Your task to perform on an android device: change your default location settings in chrome Image 0: 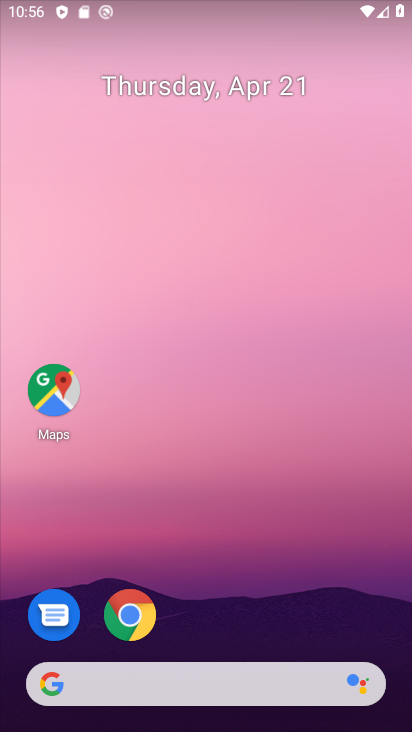
Step 0: drag from (247, 694) to (147, 82)
Your task to perform on an android device: change your default location settings in chrome Image 1: 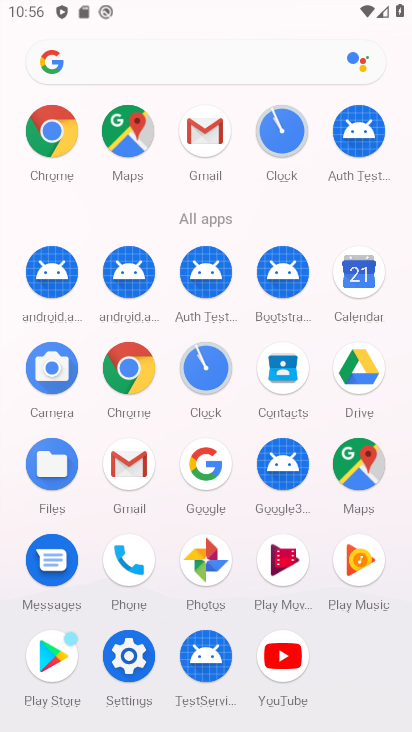
Step 1: click (125, 371)
Your task to perform on an android device: change your default location settings in chrome Image 2: 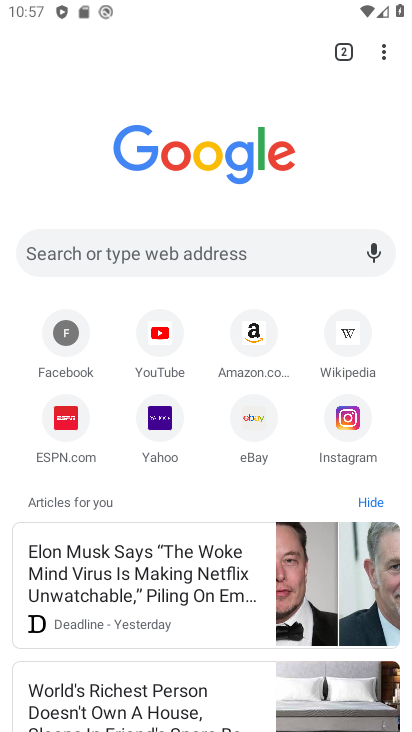
Step 2: drag from (382, 46) to (173, 481)
Your task to perform on an android device: change your default location settings in chrome Image 3: 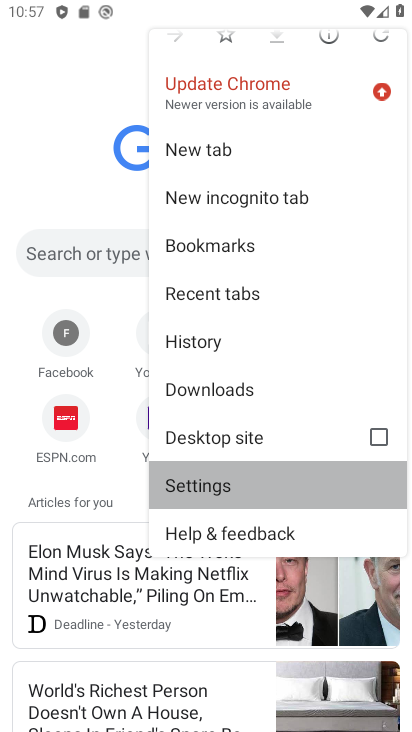
Step 3: click (173, 481)
Your task to perform on an android device: change your default location settings in chrome Image 4: 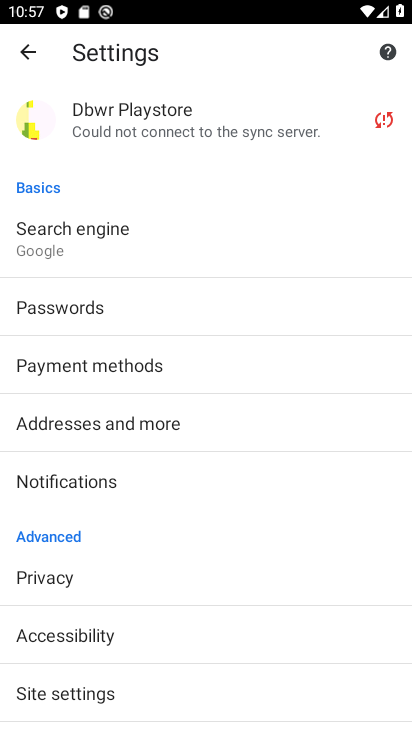
Step 4: drag from (133, 456) to (117, 212)
Your task to perform on an android device: change your default location settings in chrome Image 5: 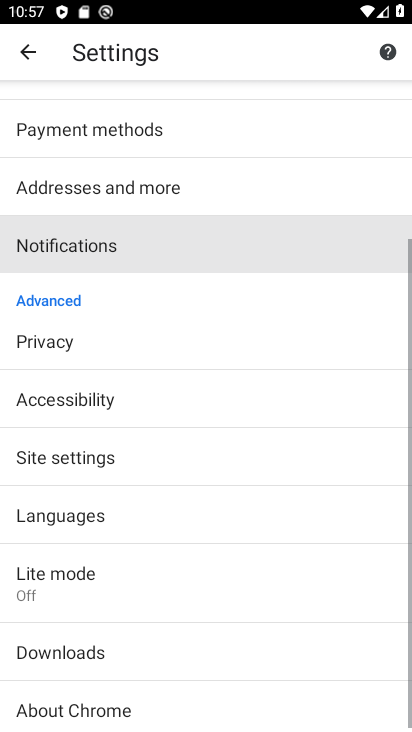
Step 5: drag from (173, 508) to (173, 280)
Your task to perform on an android device: change your default location settings in chrome Image 6: 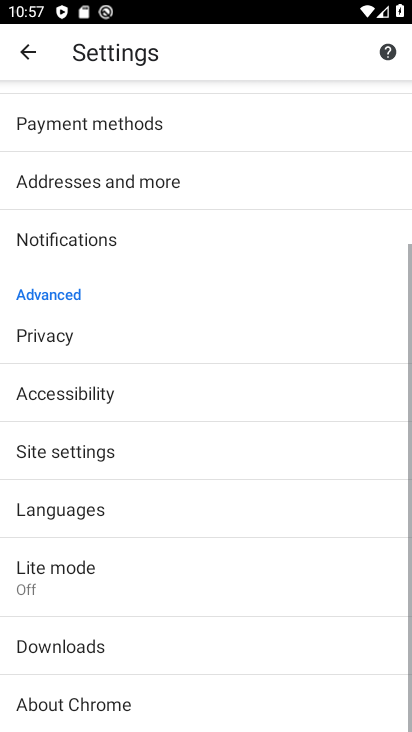
Step 6: click (62, 518)
Your task to perform on an android device: change your default location settings in chrome Image 7: 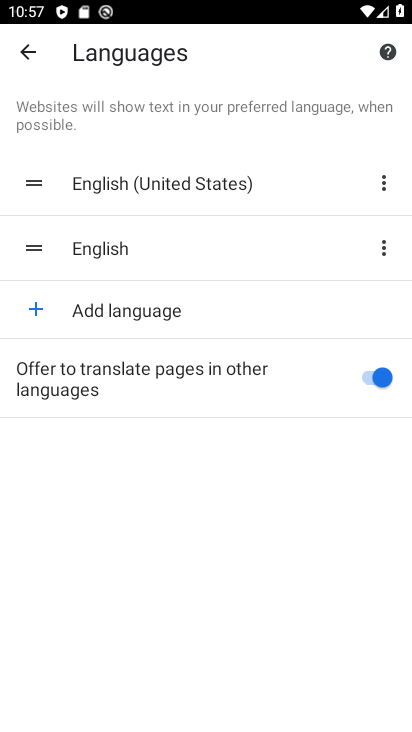
Step 7: click (27, 51)
Your task to perform on an android device: change your default location settings in chrome Image 8: 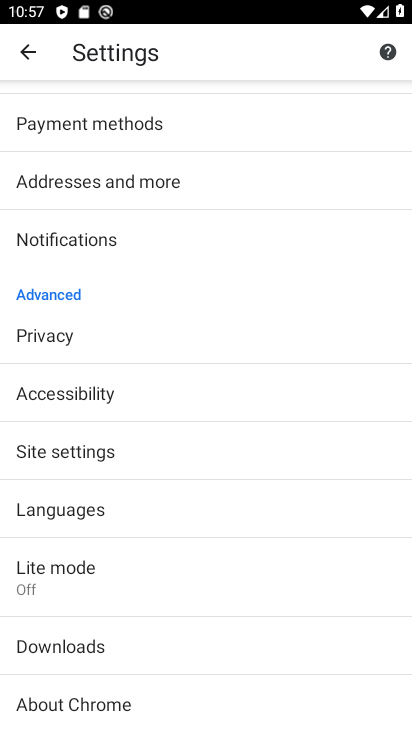
Step 8: click (44, 450)
Your task to perform on an android device: change your default location settings in chrome Image 9: 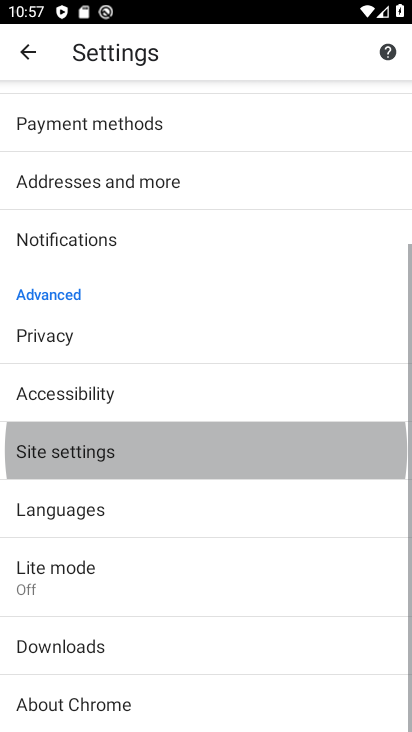
Step 9: click (44, 449)
Your task to perform on an android device: change your default location settings in chrome Image 10: 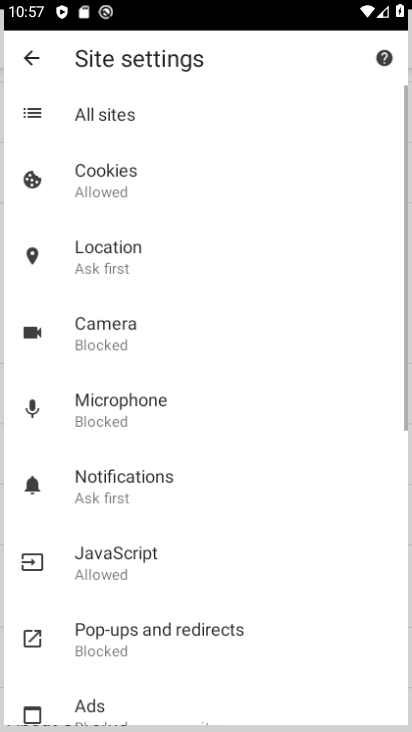
Step 10: click (45, 448)
Your task to perform on an android device: change your default location settings in chrome Image 11: 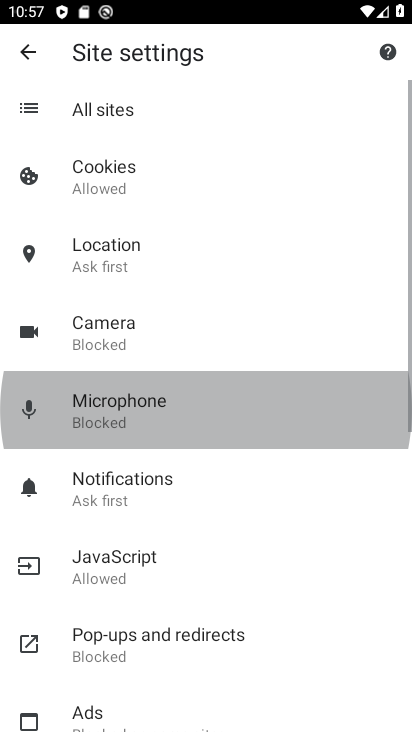
Step 11: click (45, 448)
Your task to perform on an android device: change your default location settings in chrome Image 12: 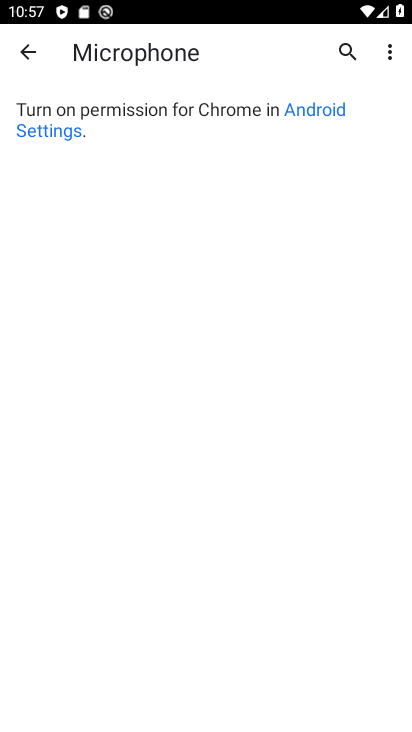
Step 12: click (25, 50)
Your task to perform on an android device: change your default location settings in chrome Image 13: 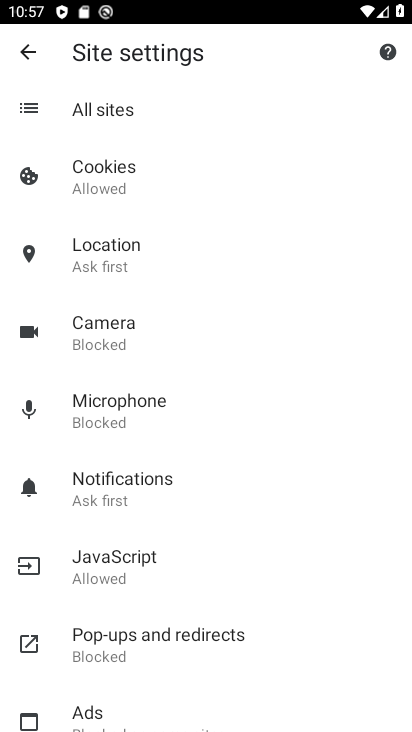
Step 13: click (107, 243)
Your task to perform on an android device: change your default location settings in chrome Image 14: 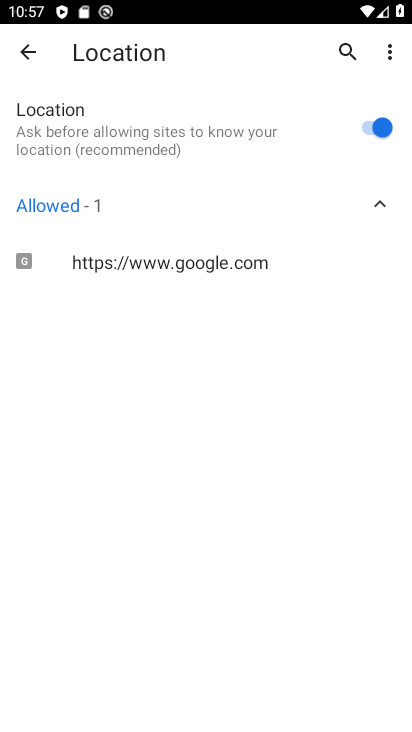
Step 14: click (382, 120)
Your task to perform on an android device: change your default location settings in chrome Image 15: 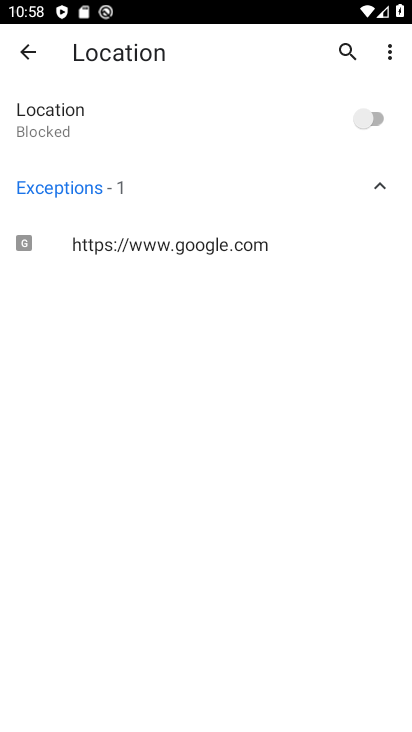
Step 15: task complete